Your task to perform on an android device: Open the web browser Image 0: 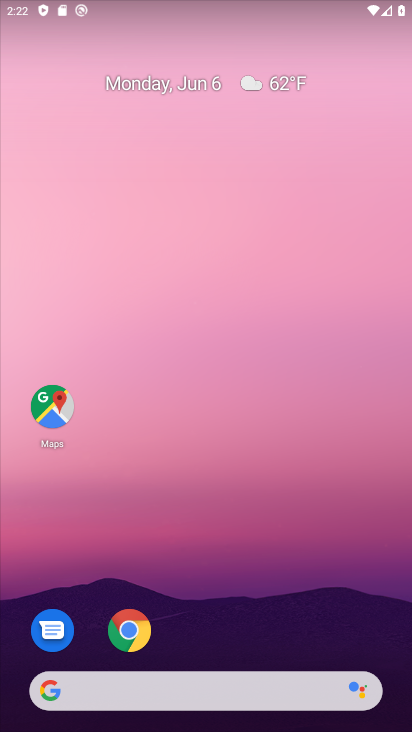
Step 0: press home button
Your task to perform on an android device: Open the web browser Image 1: 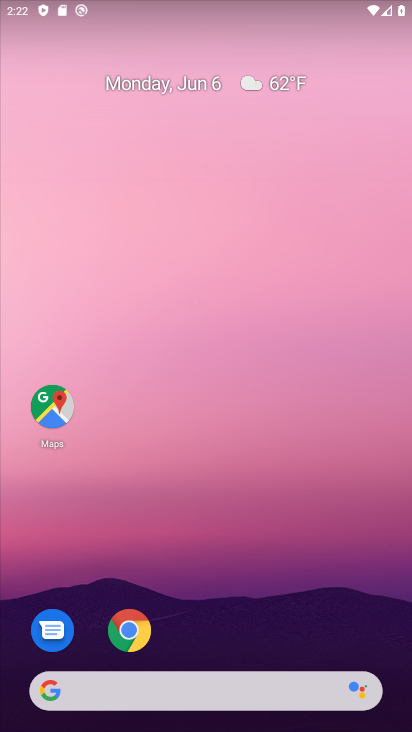
Step 1: click (126, 630)
Your task to perform on an android device: Open the web browser Image 2: 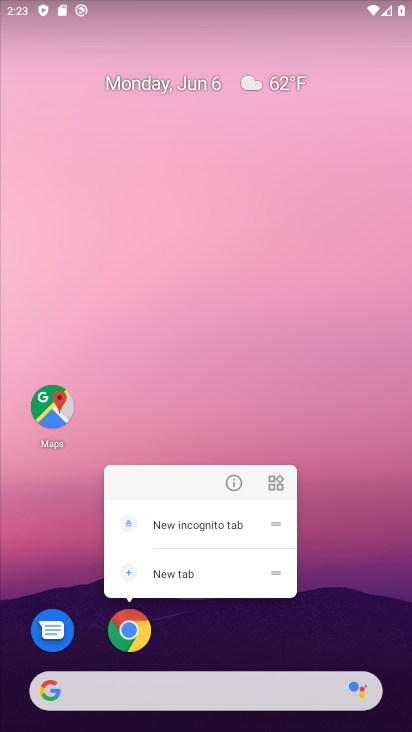
Step 2: click (126, 630)
Your task to perform on an android device: Open the web browser Image 3: 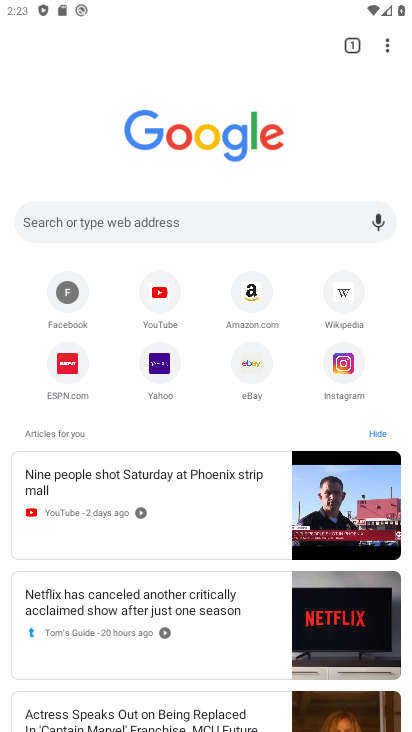
Step 3: click (276, 208)
Your task to perform on an android device: Open the web browser Image 4: 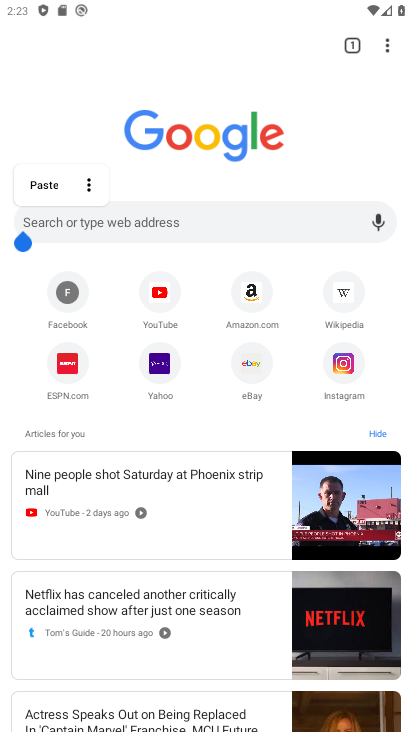
Step 4: click (304, 222)
Your task to perform on an android device: Open the web browser Image 5: 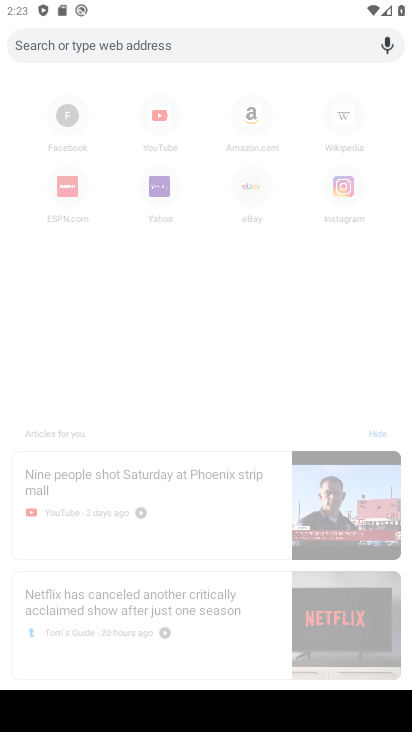
Step 5: type " web browser"
Your task to perform on an android device: Open the web browser Image 6: 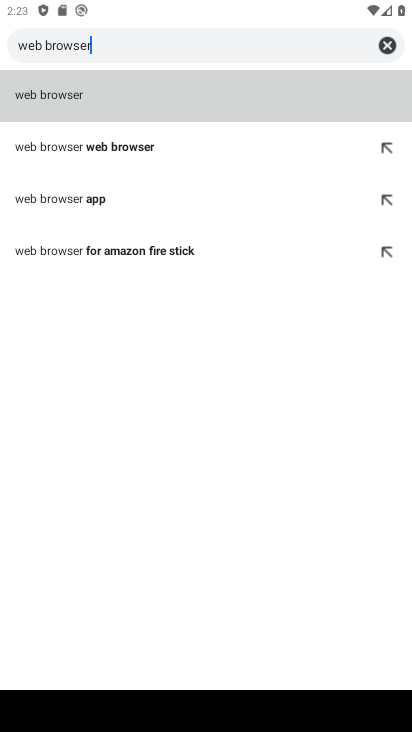
Step 6: type ""
Your task to perform on an android device: Open the web browser Image 7: 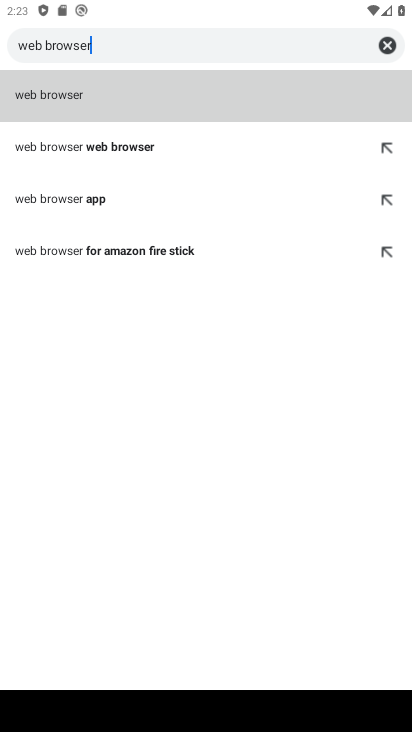
Step 7: click (132, 86)
Your task to perform on an android device: Open the web browser Image 8: 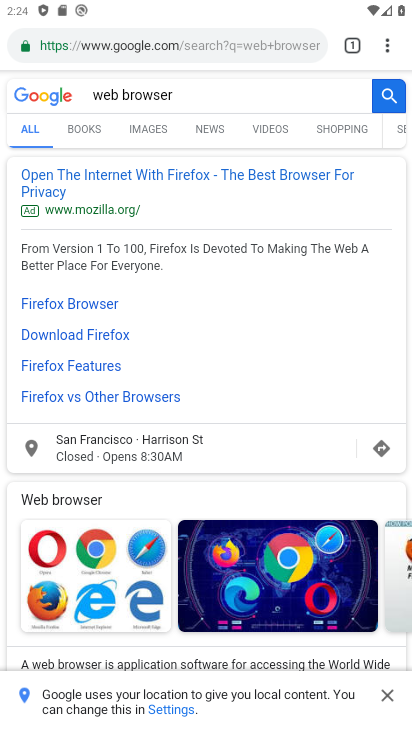
Step 8: task complete